Your task to perform on an android device: Search for seafood restaurants on Google Maps Image 0: 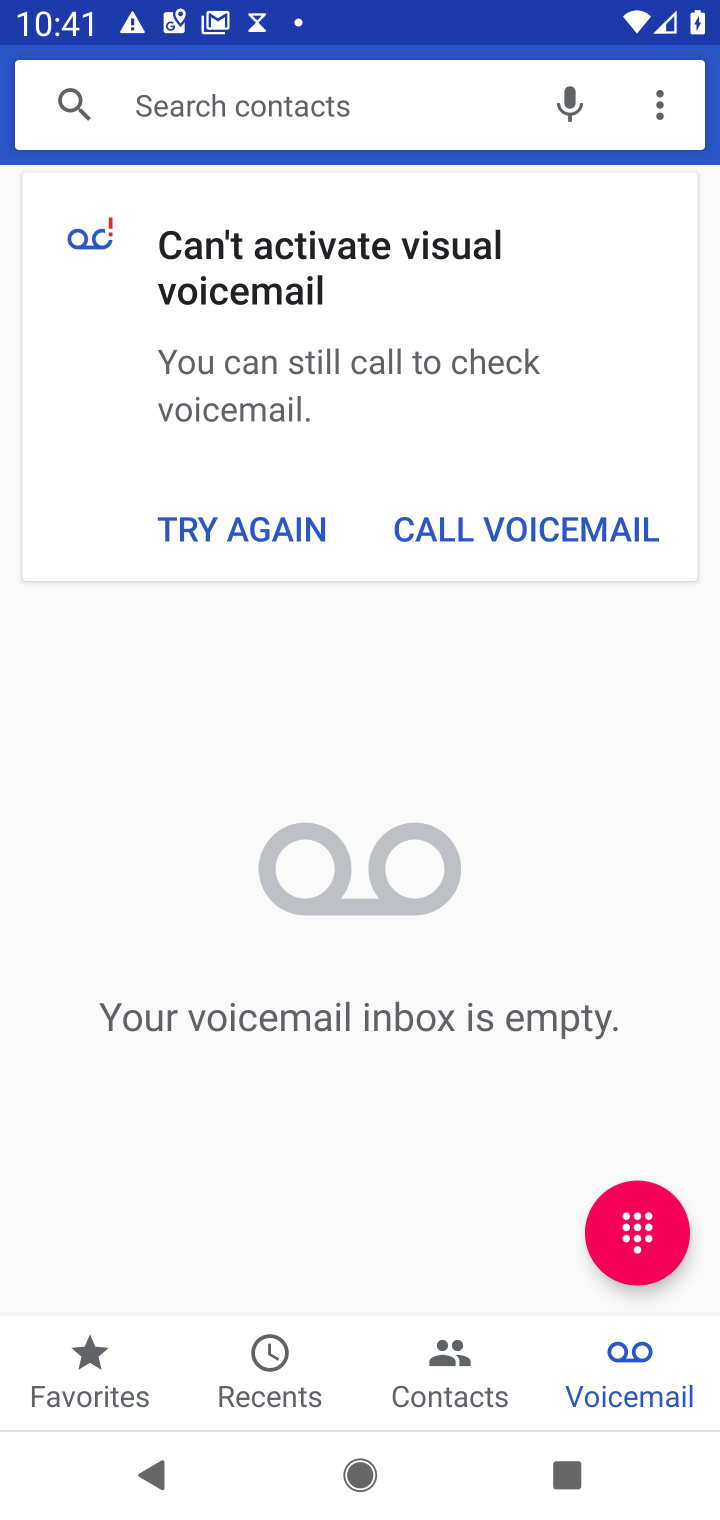
Step 0: press home button
Your task to perform on an android device: Search for seafood restaurants on Google Maps Image 1: 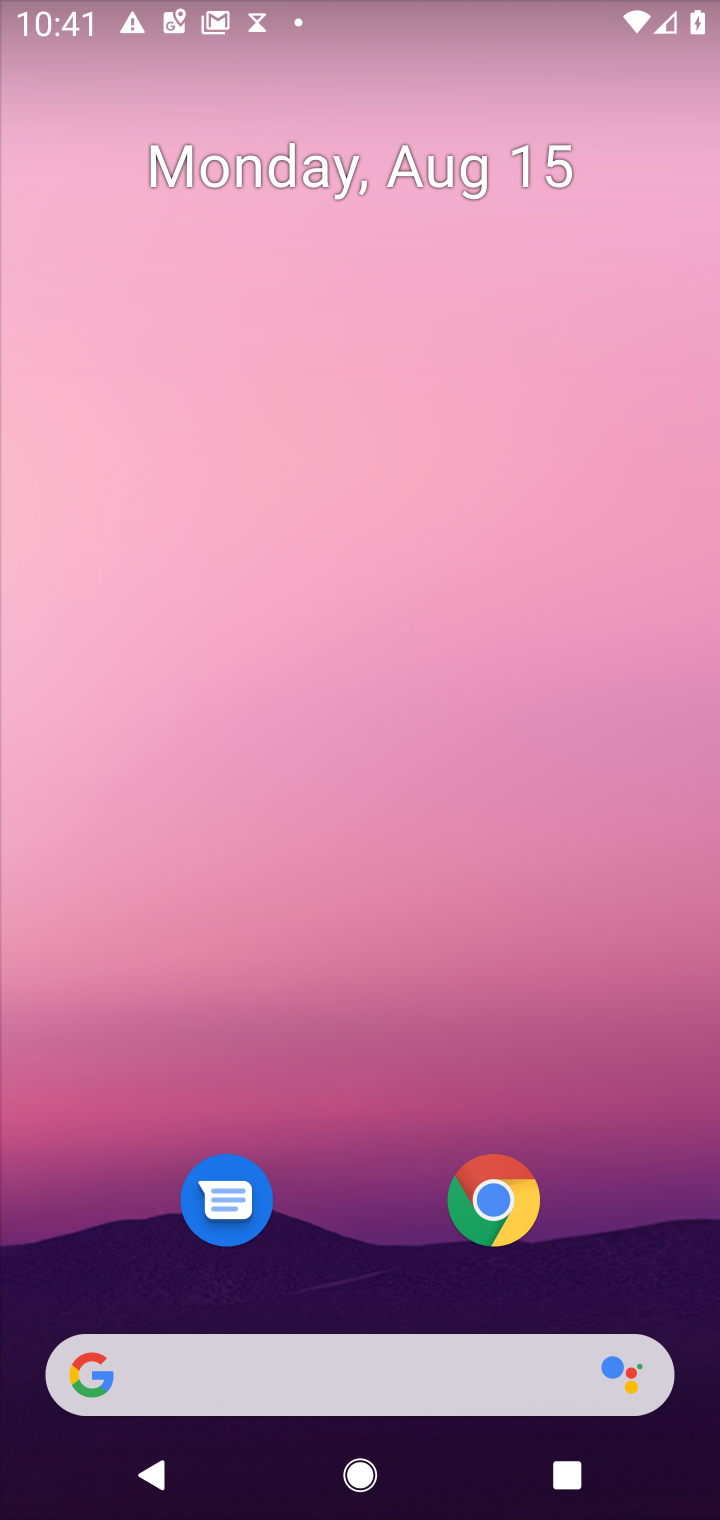
Step 1: drag from (350, 1177) to (371, 301)
Your task to perform on an android device: Search for seafood restaurants on Google Maps Image 2: 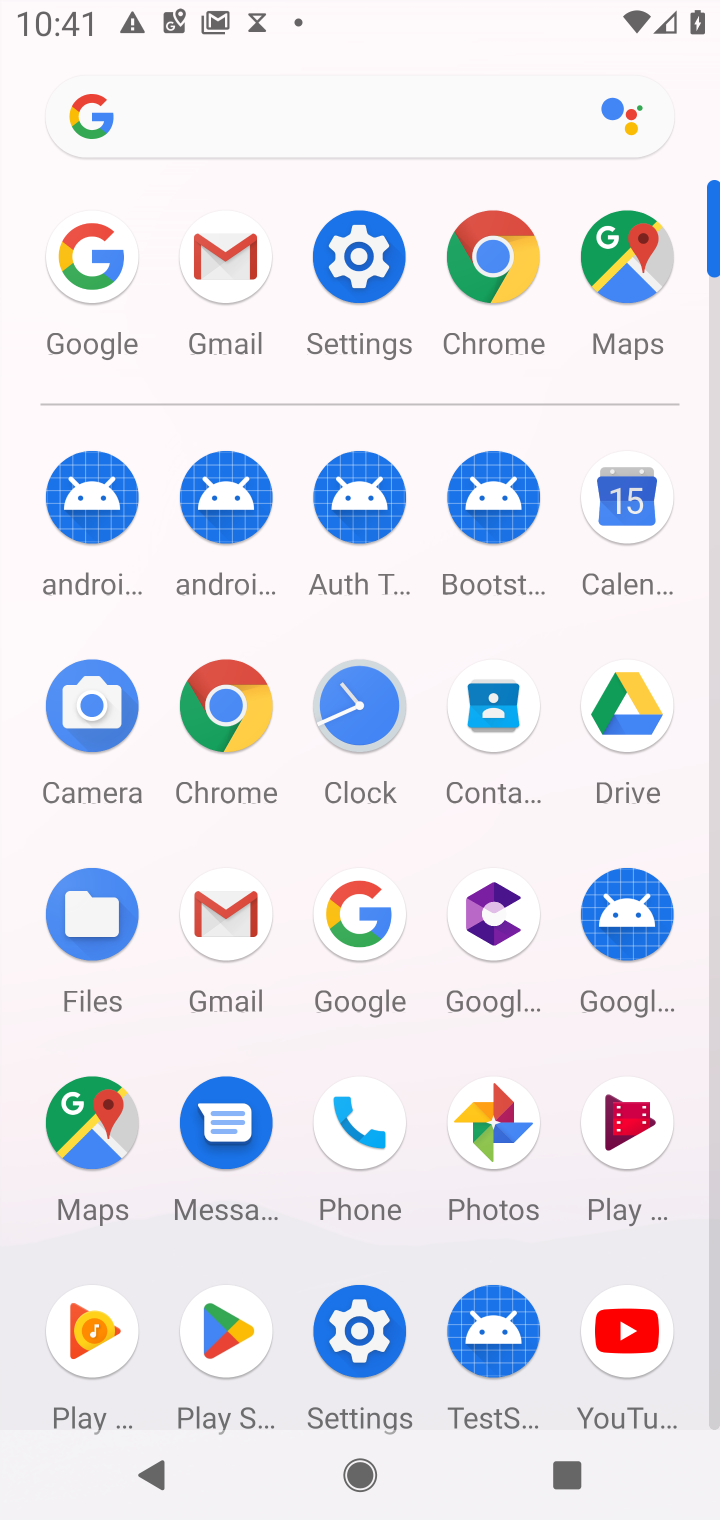
Step 2: click (637, 289)
Your task to perform on an android device: Search for seafood restaurants on Google Maps Image 3: 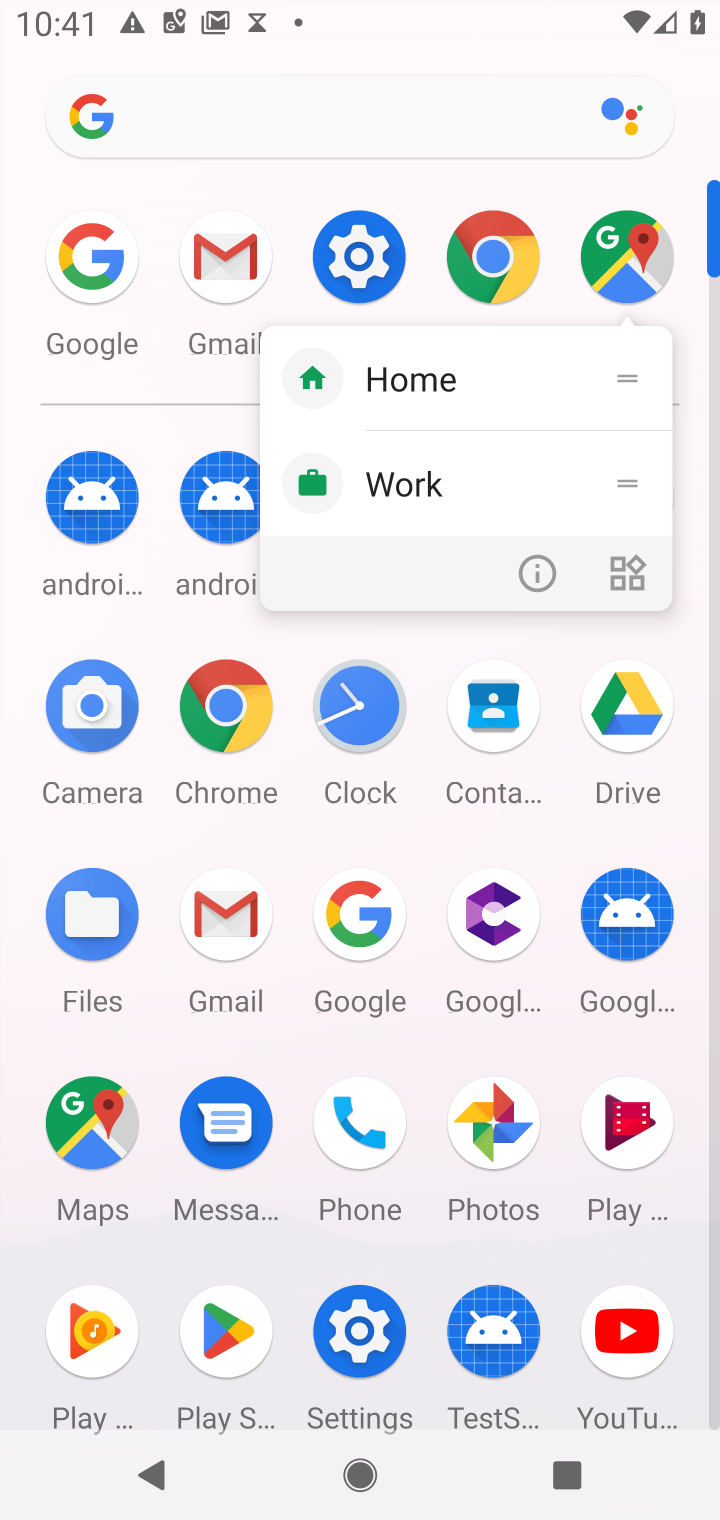
Step 3: click (632, 262)
Your task to perform on an android device: Search for seafood restaurants on Google Maps Image 4: 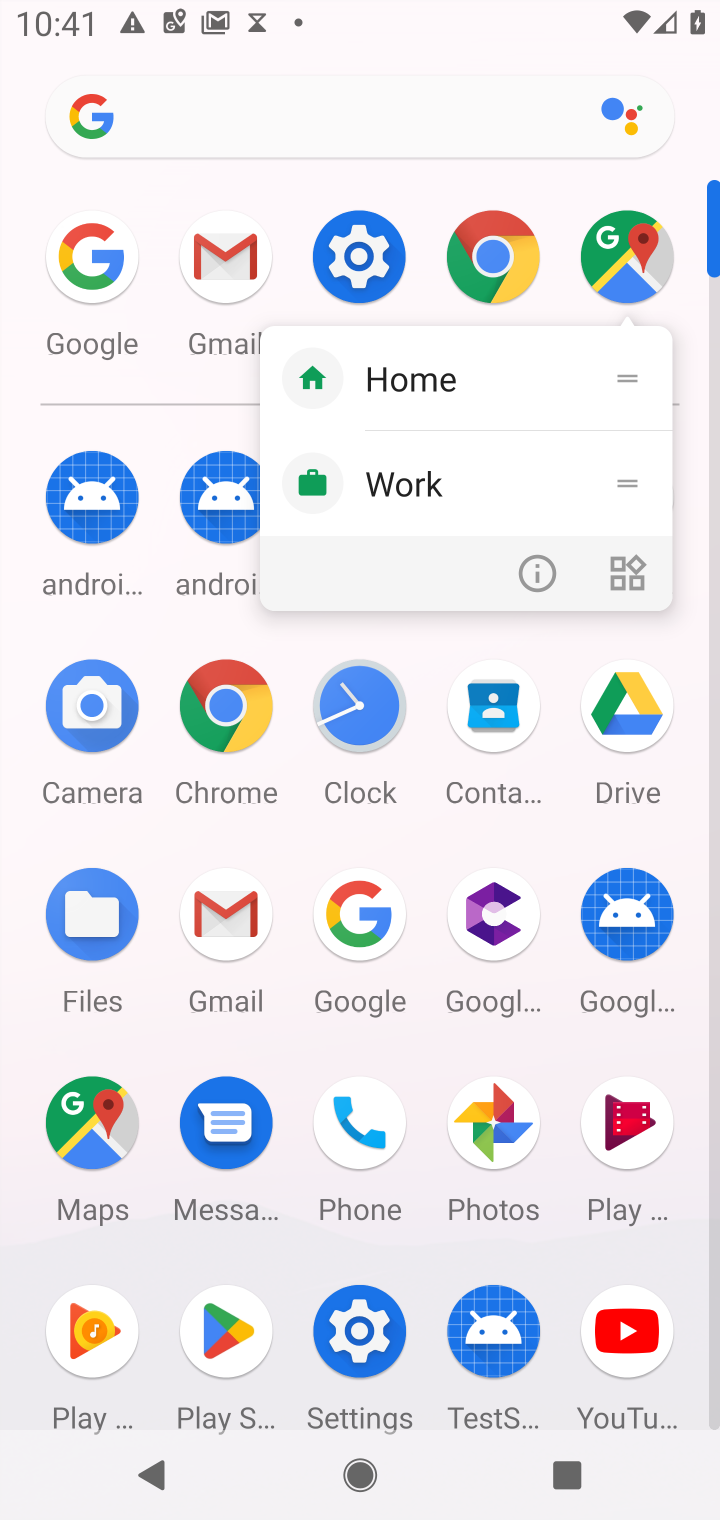
Step 4: click (632, 262)
Your task to perform on an android device: Search for seafood restaurants on Google Maps Image 5: 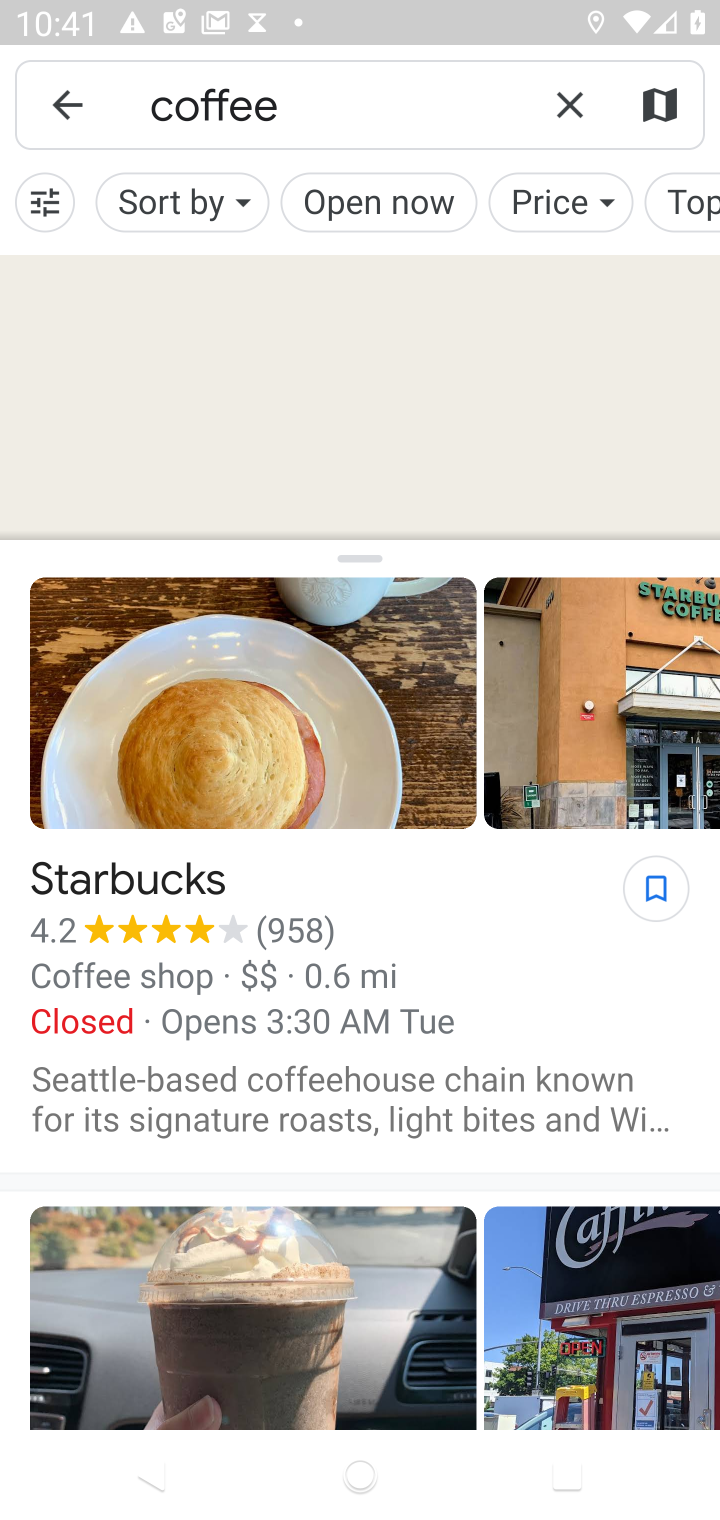
Step 5: click (562, 100)
Your task to perform on an android device: Search for seafood restaurants on Google Maps Image 6: 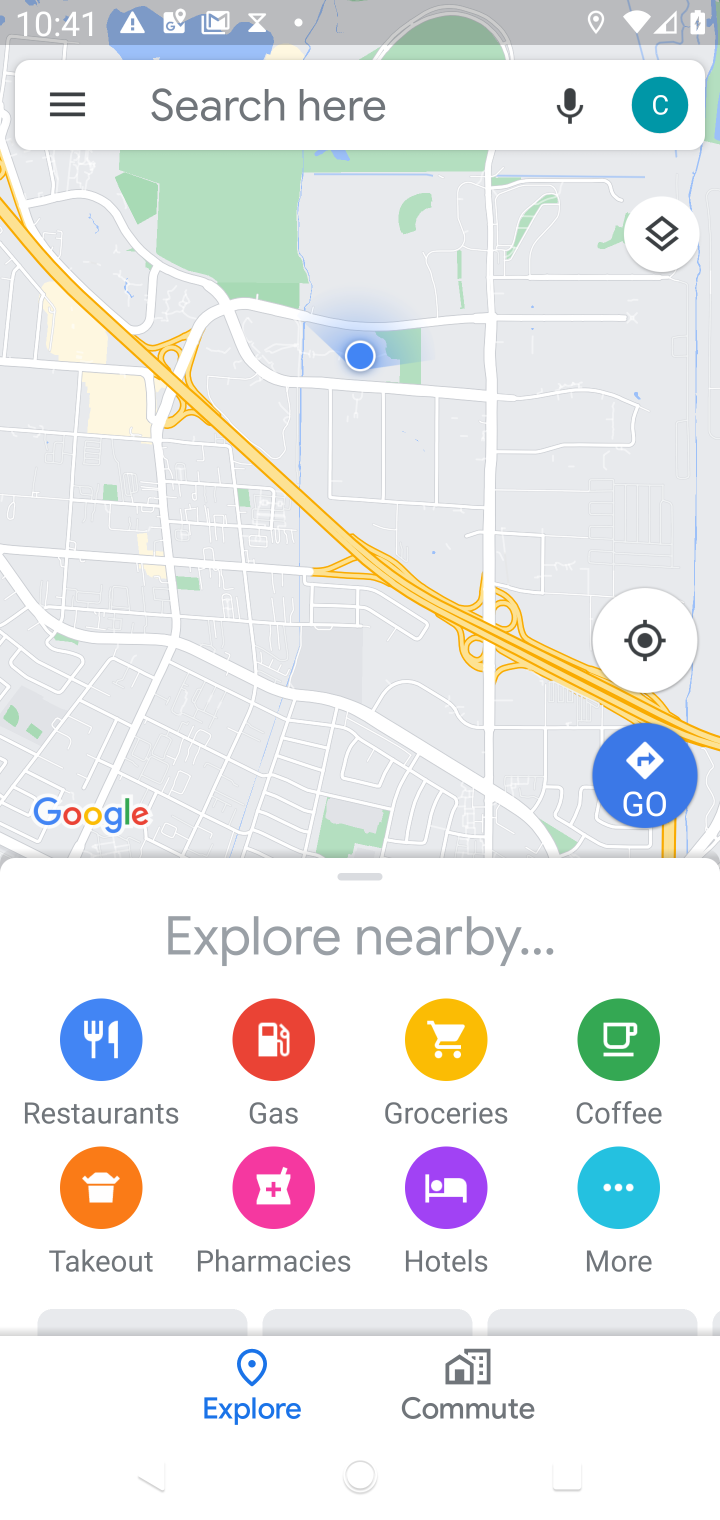
Step 6: click (305, 94)
Your task to perform on an android device: Search for seafood restaurants on Google Maps Image 7: 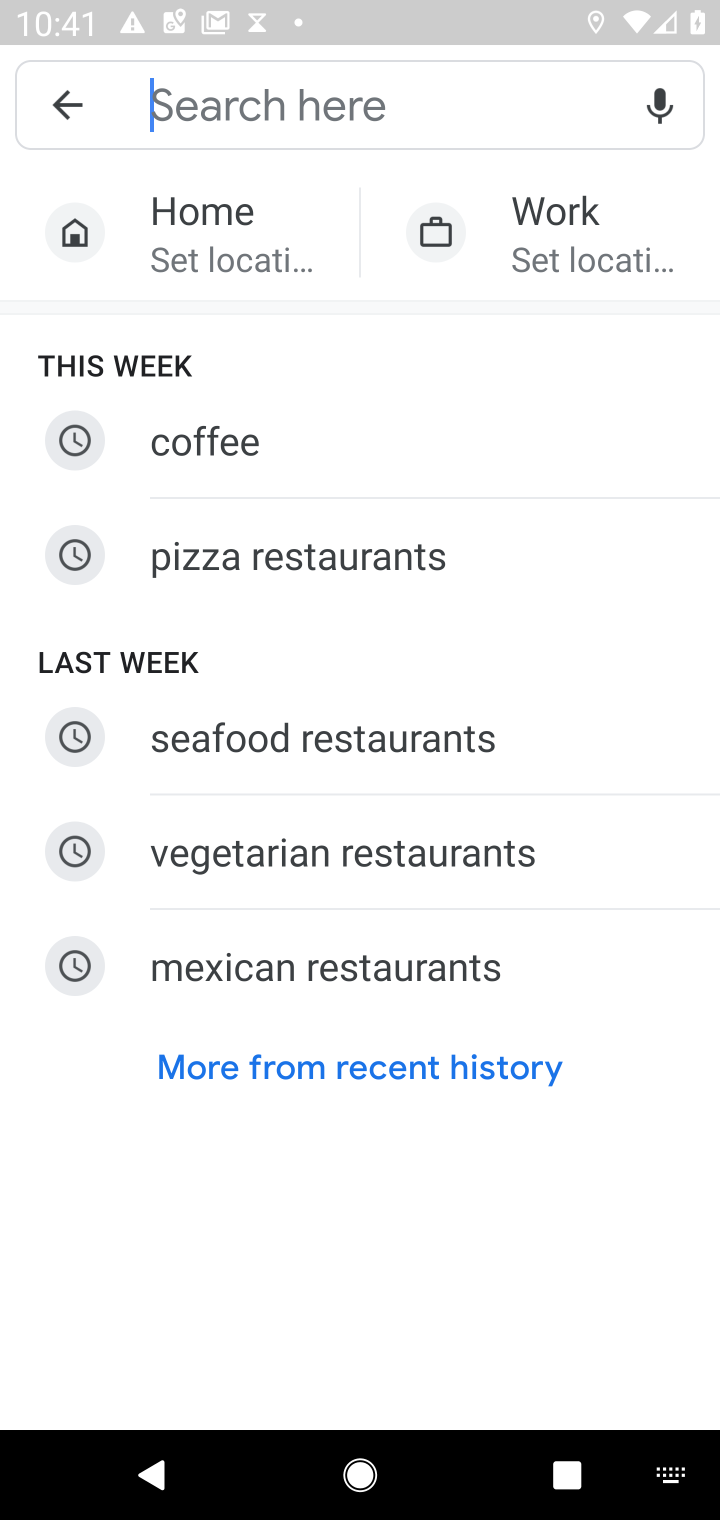
Step 7: click (285, 747)
Your task to perform on an android device: Search for seafood restaurants on Google Maps Image 8: 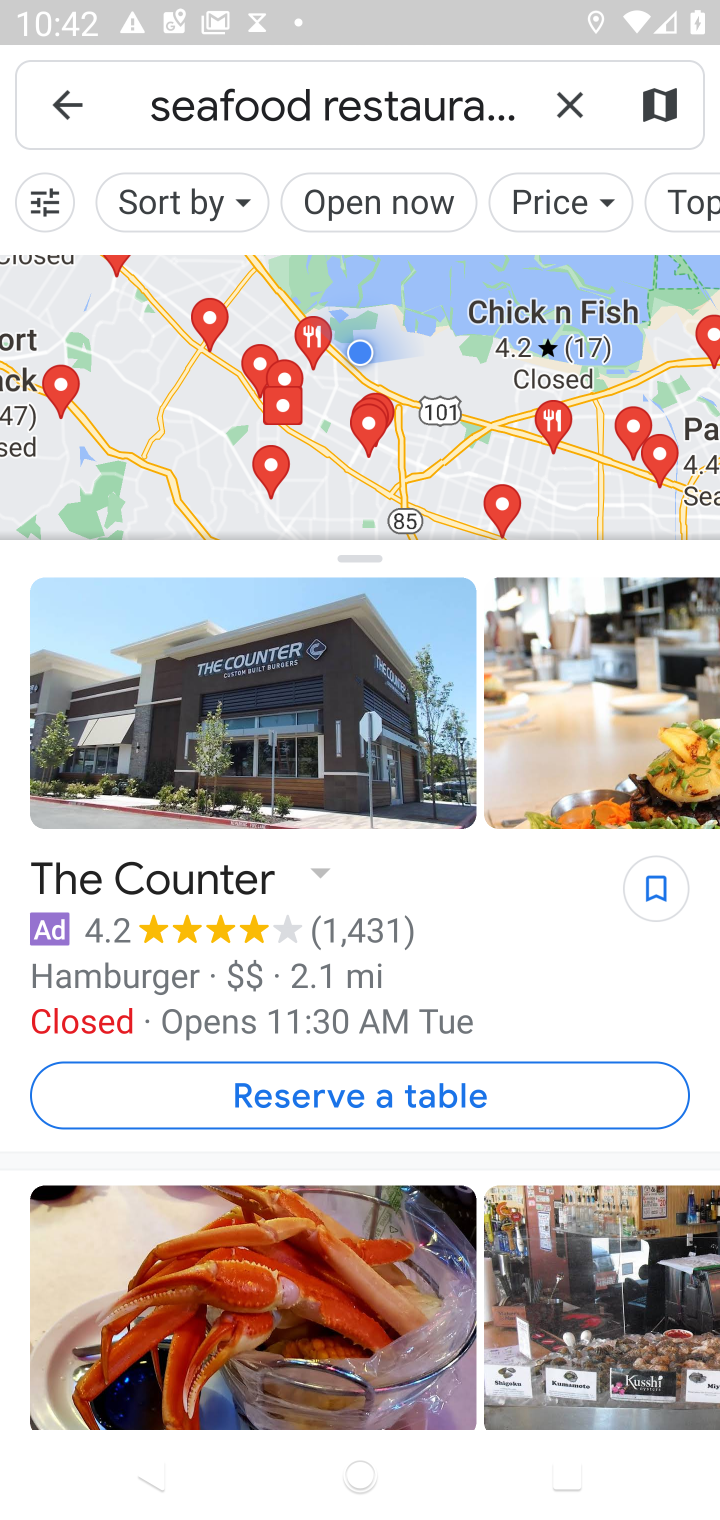
Step 8: task complete